Your task to perform on an android device: Set an alarm for 7am Image 0: 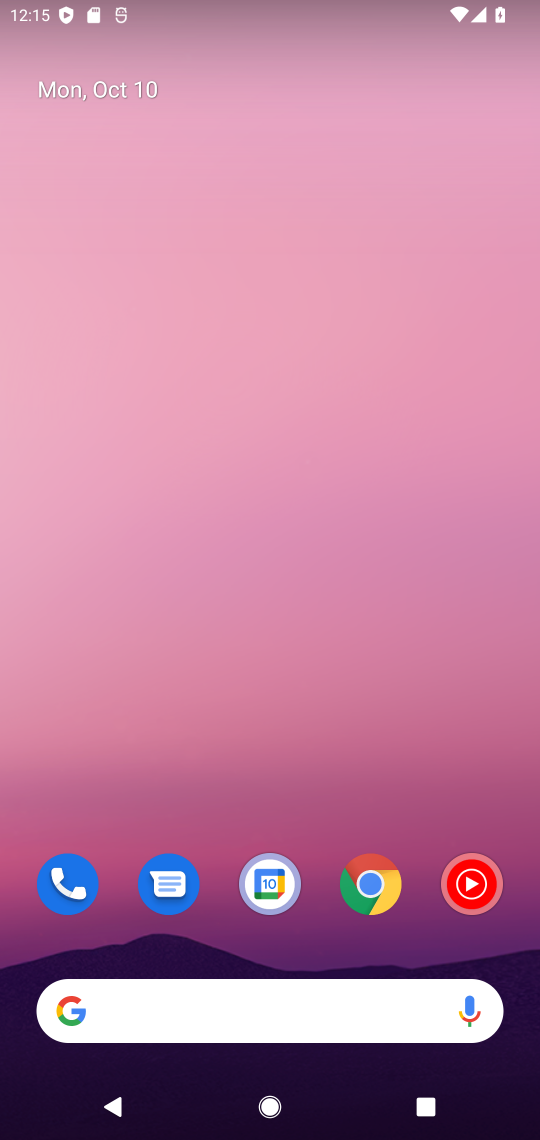
Step 0: drag from (395, 963) to (406, 207)
Your task to perform on an android device: Set an alarm for 7am Image 1: 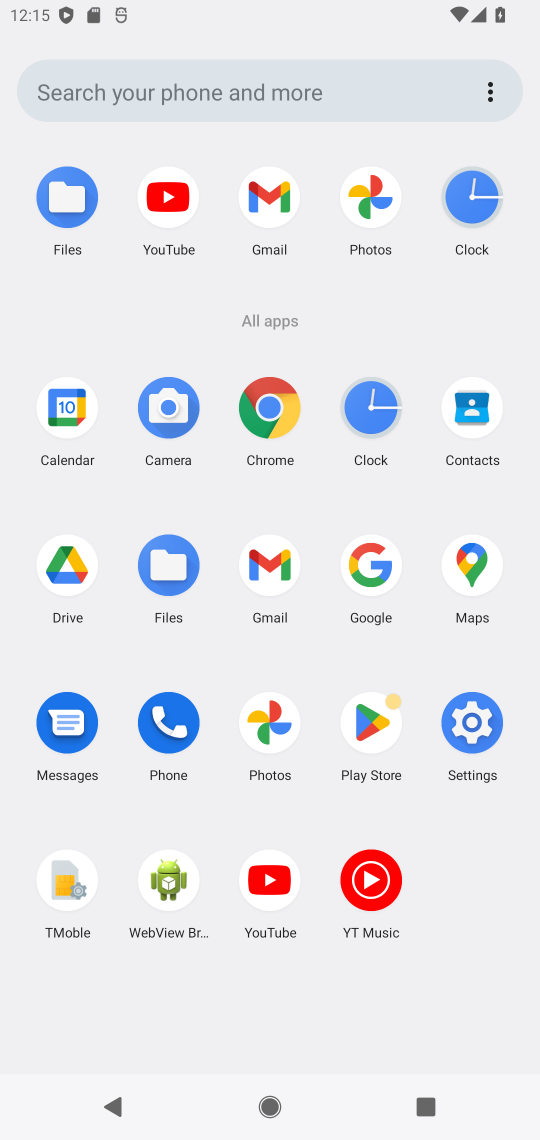
Step 1: click (358, 408)
Your task to perform on an android device: Set an alarm for 7am Image 2: 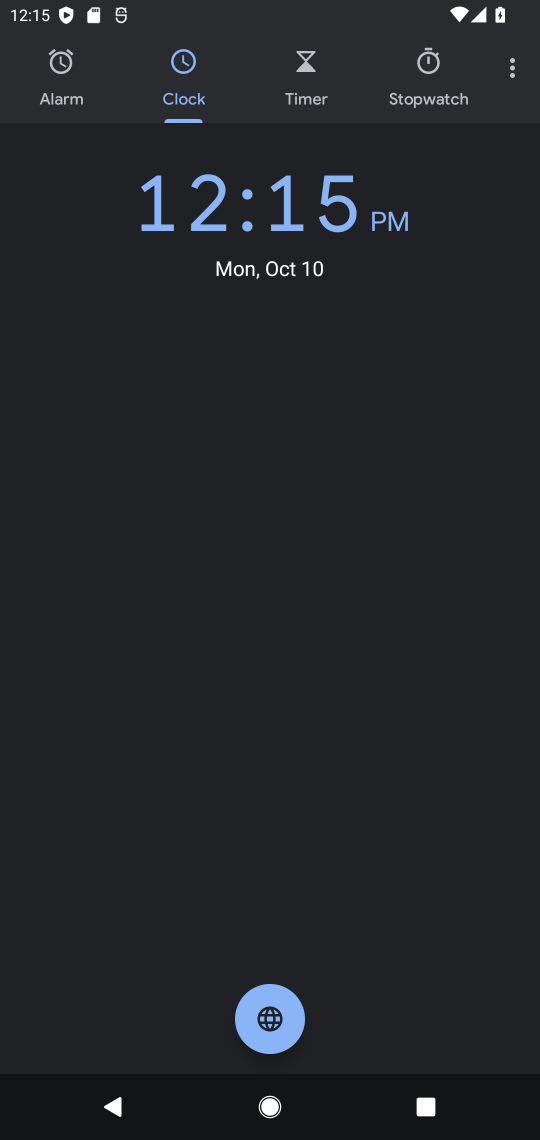
Step 2: click (80, 81)
Your task to perform on an android device: Set an alarm for 7am Image 3: 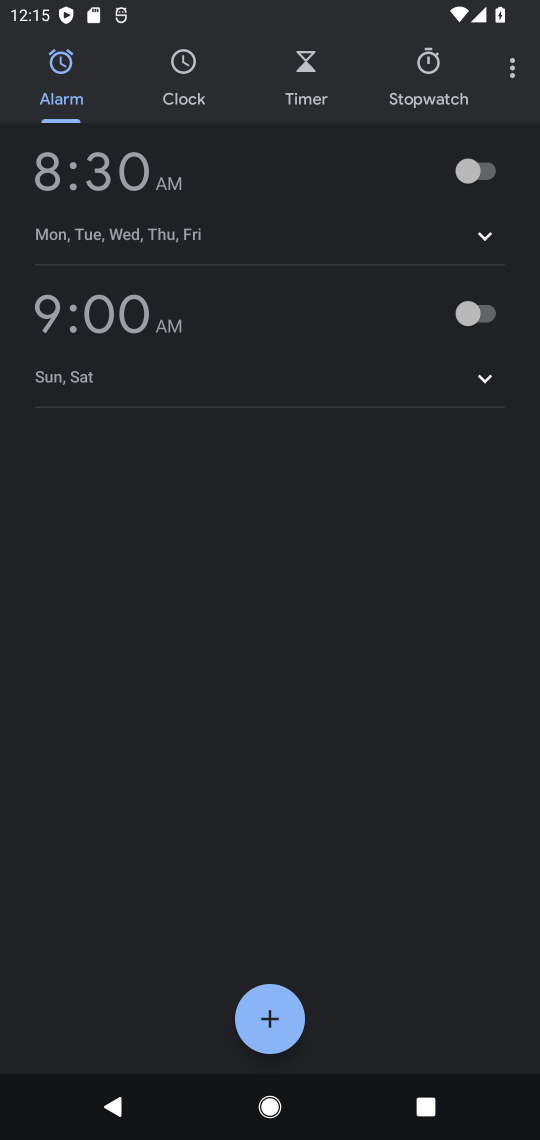
Step 3: click (280, 998)
Your task to perform on an android device: Set an alarm for 7am Image 4: 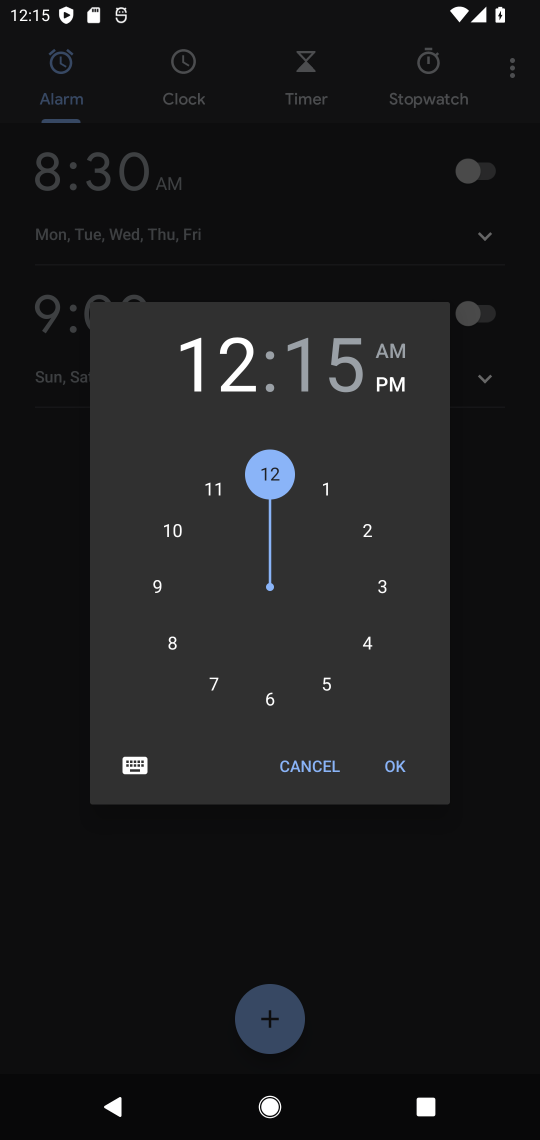
Step 4: click (211, 687)
Your task to perform on an android device: Set an alarm for 7am Image 5: 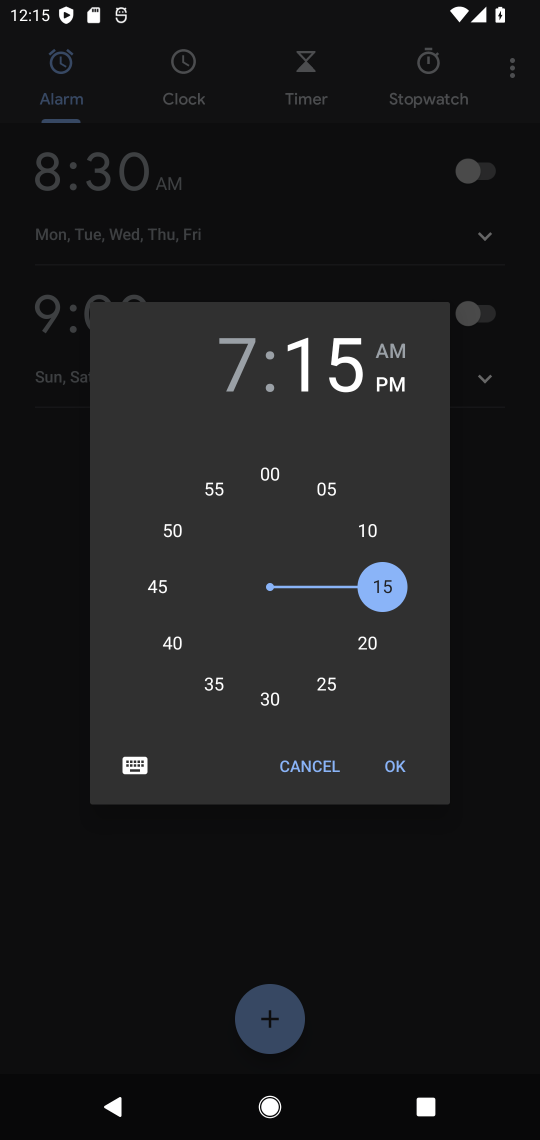
Step 5: click (273, 481)
Your task to perform on an android device: Set an alarm for 7am Image 6: 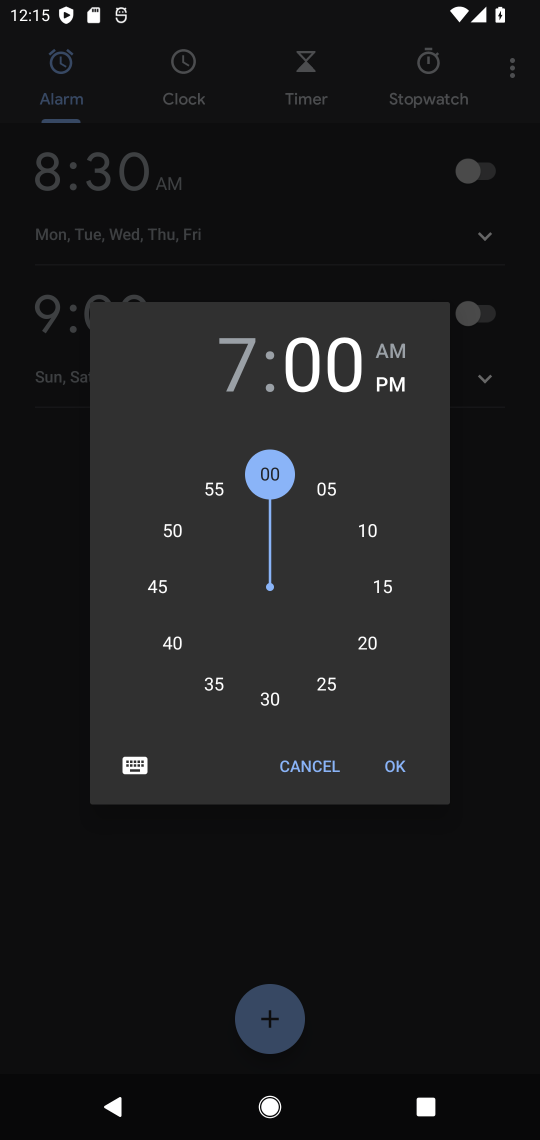
Step 6: click (378, 350)
Your task to perform on an android device: Set an alarm for 7am Image 7: 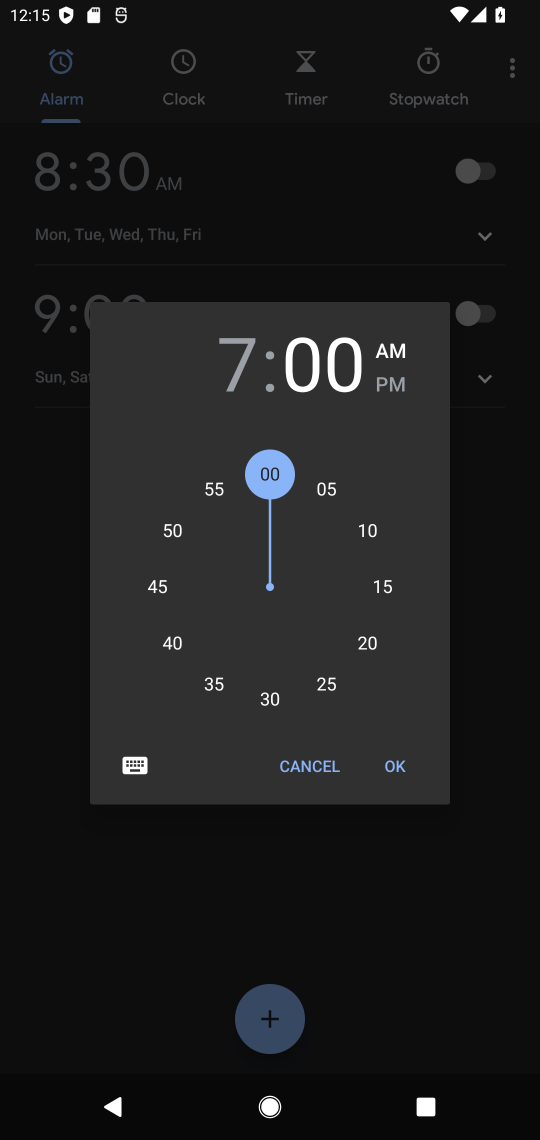
Step 7: click (402, 771)
Your task to perform on an android device: Set an alarm for 7am Image 8: 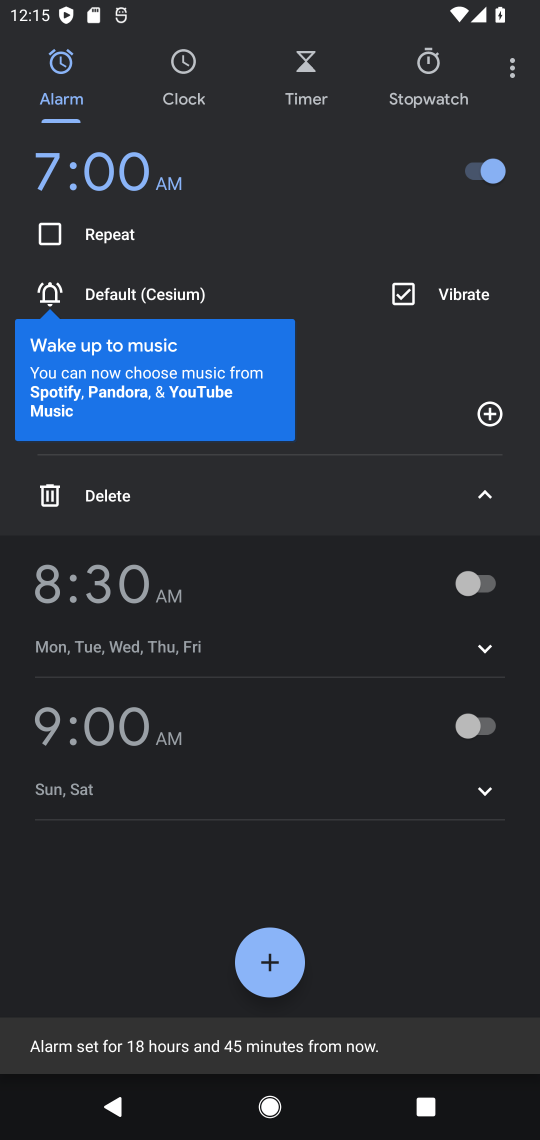
Step 8: click (484, 494)
Your task to perform on an android device: Set an alarm for 7am Image 9: 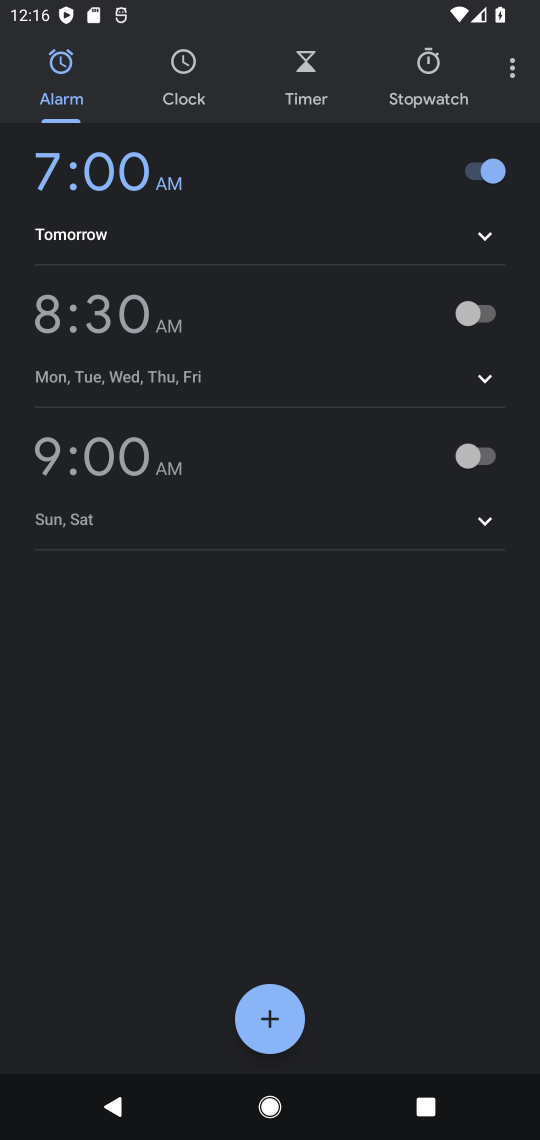
Step 9: task complete